Your task to perform on an android device: see sites visited before in the chrome app Image 0: 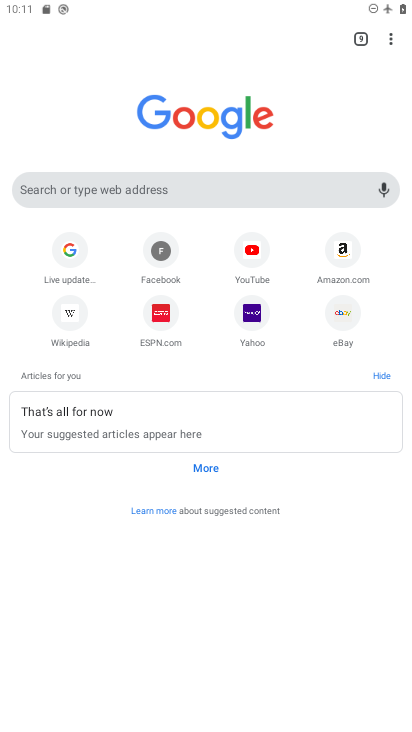
Step 0: click (387, 34)
Your task to perform on an android device: see sites visited before in the chrome app Image 1: 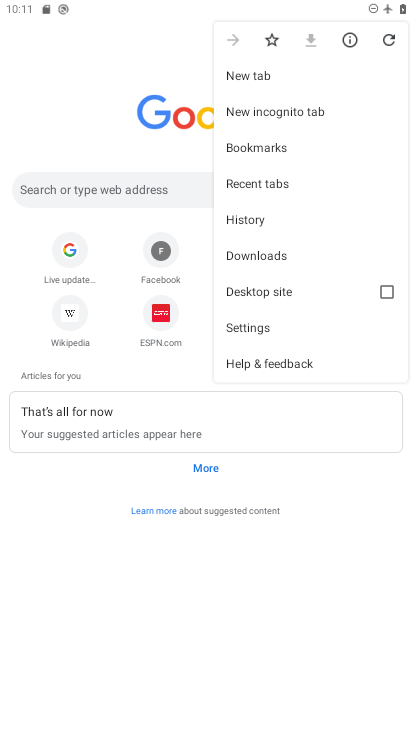
Step 1: click (271, 182)
Your task to perform on an android device: see sites visited before in the chrome app Image 2: 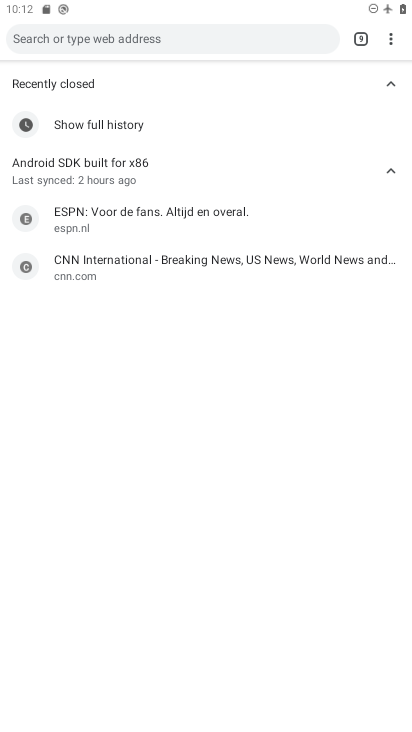
Step 2: task complete